Your task to perform on an android device: turn on notifications settings in the gmail app Image 0: 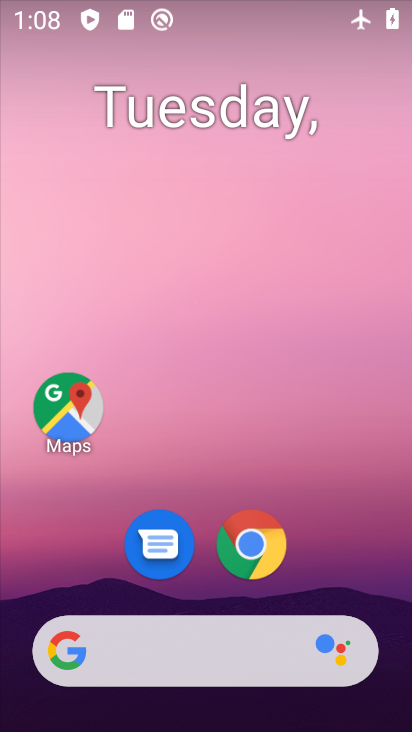
Step 0: drag from (396, 645) to (273, 142)
Your task to perform on an android device: turn on notifications settings in the gmail app Image 1: 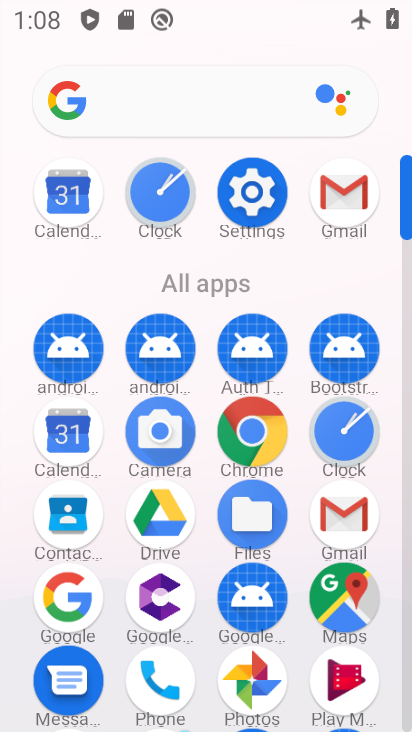
Step 1: click (408, 691)
Your task to perform on an android device: turn on notifications settings in the gmail app Image 2: 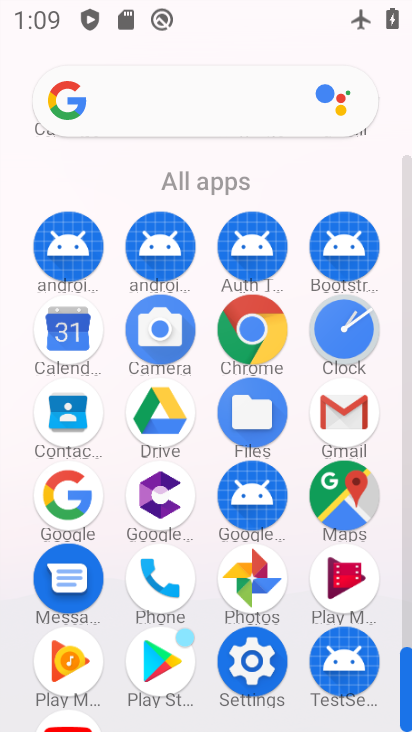
Step 2: click (340, 408)
Your task to perform on an android device: turn on notifications settings in the gmail app Image 3: 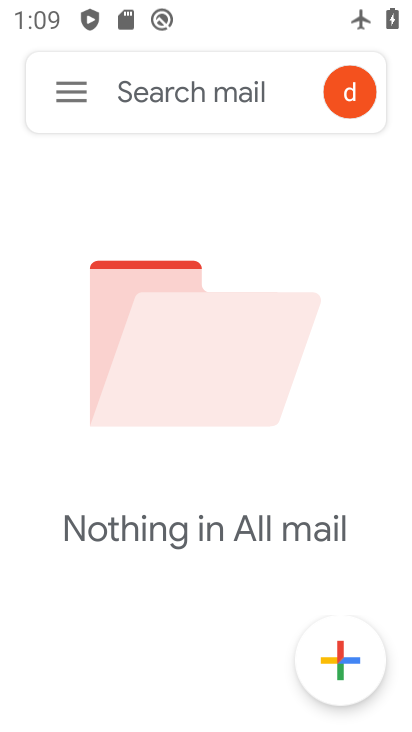
Step 3: click (69, 89)
Your task to perform on an android device: turn on notifications settings in the gmail app Image 4: 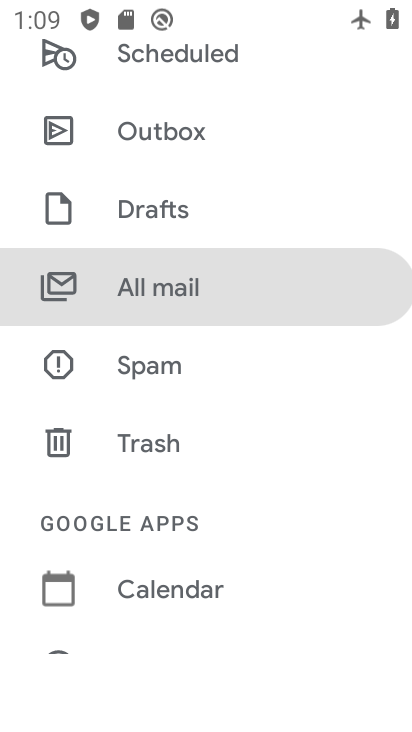
Step 4: drag from (244, 559) to (258, 246)
Your task to perform on an android device: turn on notifications settings in the gmail app Image 5: 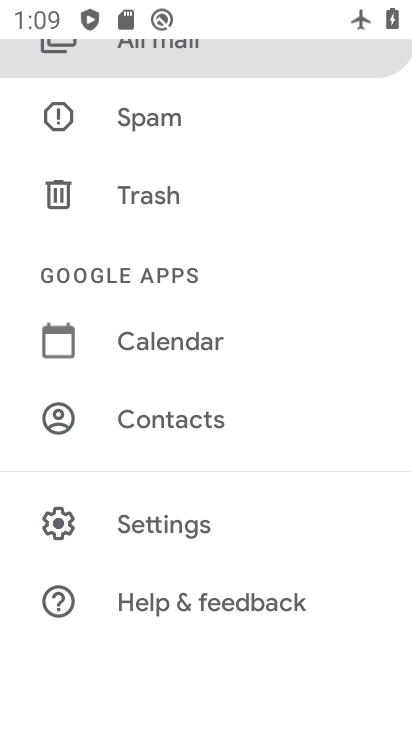
Step 5: click (160, 533)
Your task to perform on an android device: turn on notifications settings in the gmail app Image 6: 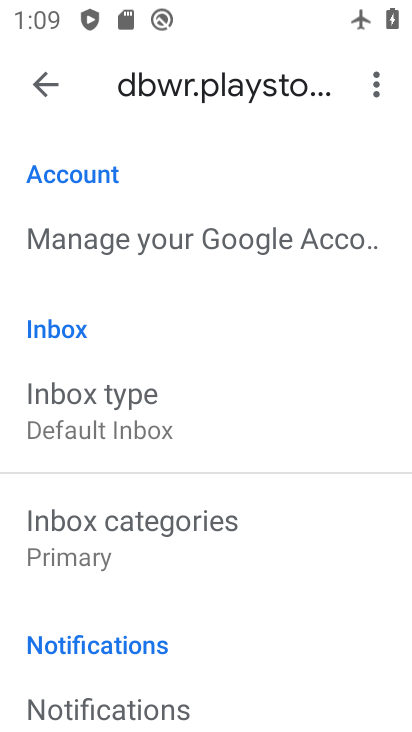
Step 6: drag from (274, 622) to (258, 222)
Your task to perform on an android device: turn on notifications settings in the gmail app Image 7: 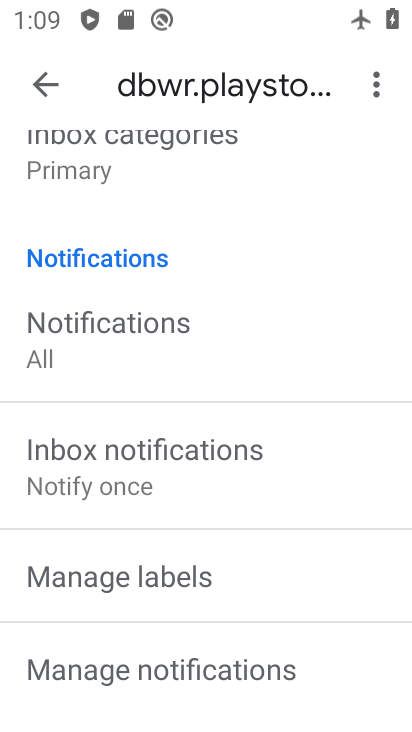
Step 7: drag from (311, 621) to (280, 317)
Your task to perform on an android device: turn on notifications settings in the gmail app Image 8: 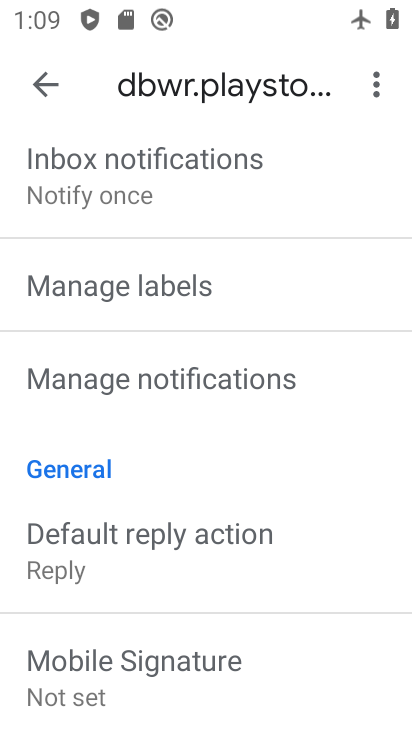
Step 8: click (119, 370)
Your task to perform on an android device: turn on notifications settings in the gmail app Image 9: 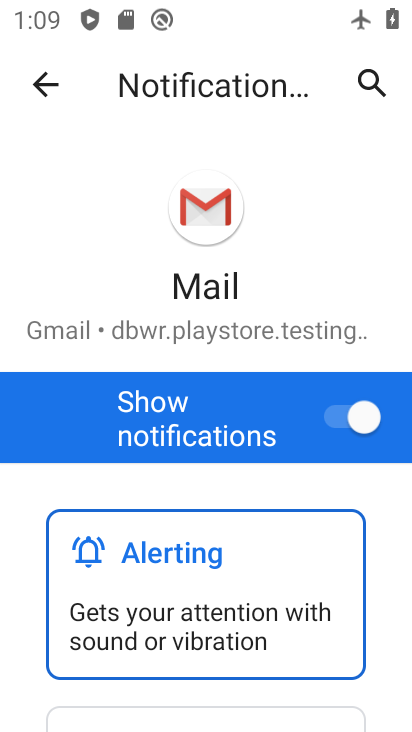
Step 9: task complete